Your task to perform on an android device: clear all cookies in the chrome app Image 0: 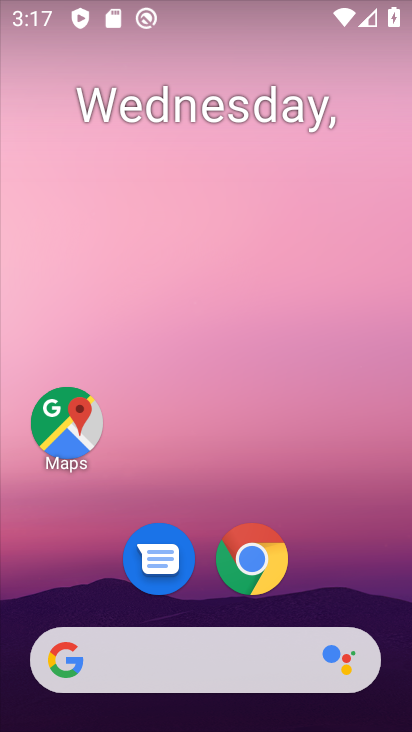
Step 0: drag from (99, 568) to (229, 142)
Your task to perform on an android device: clear all cookies in the chrome app Image 1: 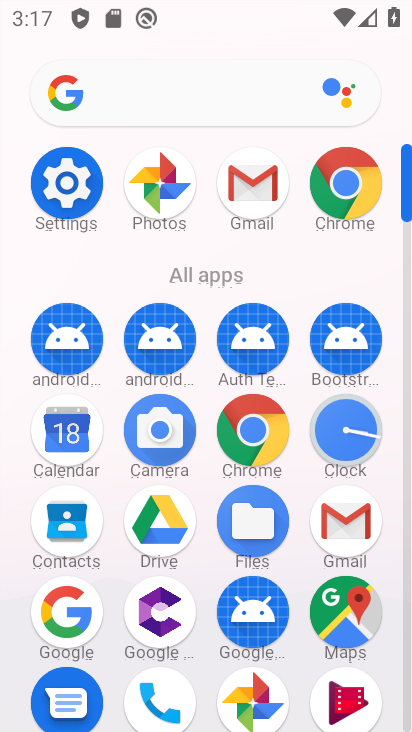
Step 1: click (258, 425)
Your task to perform on an android device: clear all cookies in the chrome app Image 2: 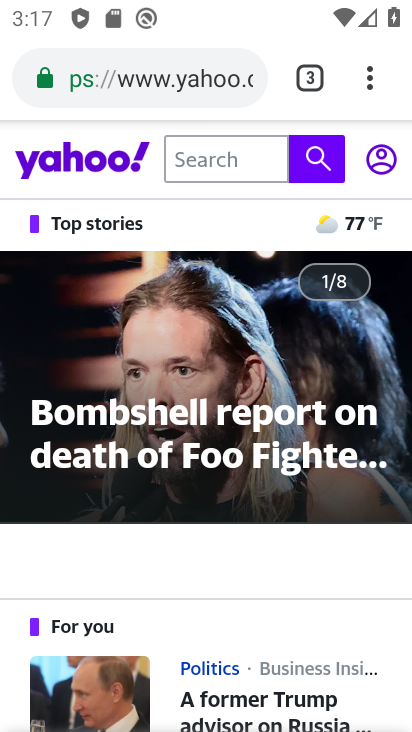
Step 2: drag from (384, 83) to (238, 614)
Your task to perform on an android device: clear all cookies in the chrome app Image 3: 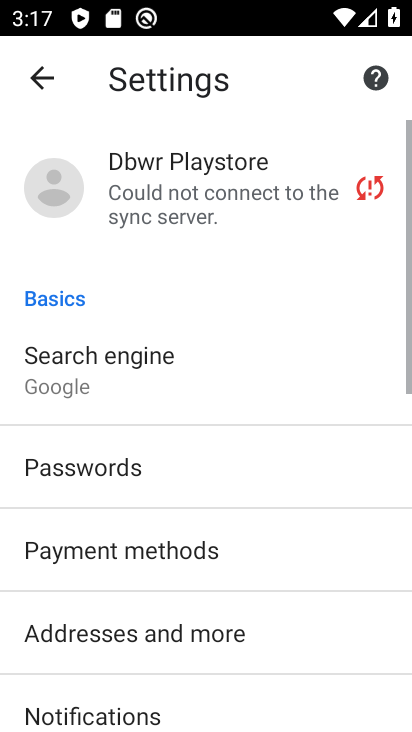
Step 3: drag from (204, 620) to (285, 248)
Your task to perform on an android device: clear all cookies in the chrome app Image 4: 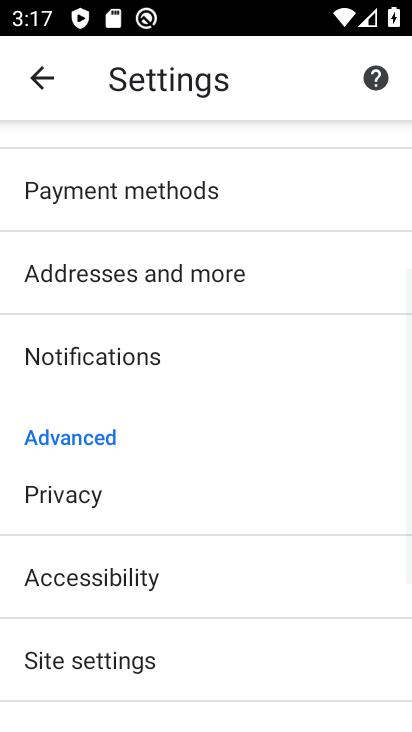
Step 4: click (143, 501)
Your task to perform on an android device: clear all cookies in the chrome app Image 5: 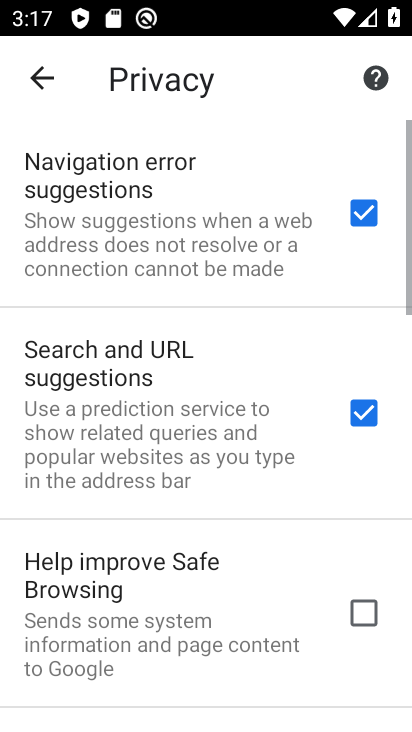
Step 5: drag from (160, 654) to (237, 181)
Your task to perform on an android device: clear all cookies in the chrome app Image 6: 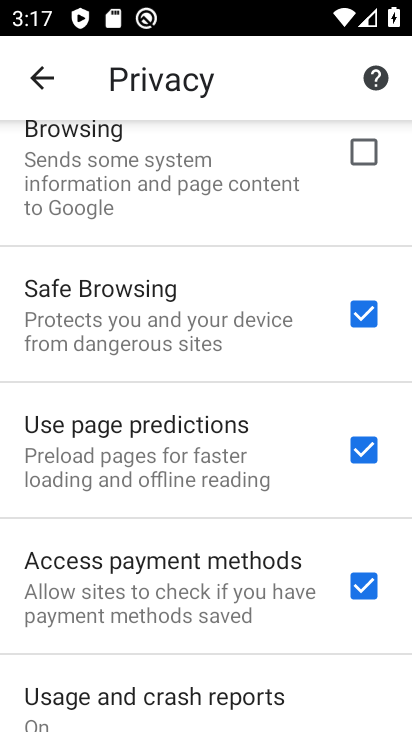
Step 6: drag from (121, 663) to (267, 276)
Your task to perform on an android device: clear all cookies in the chrome app Image 7: 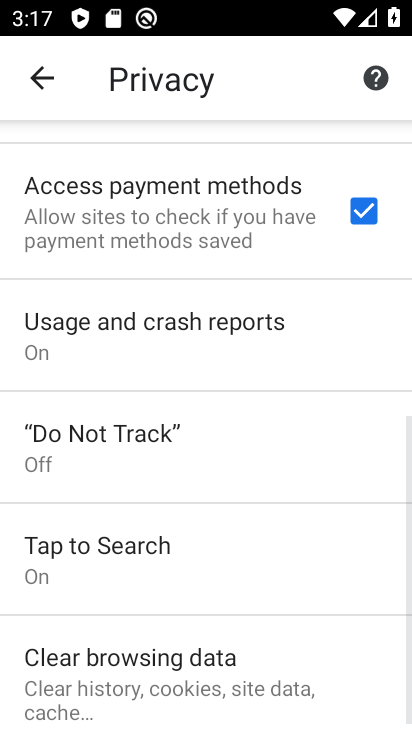
Step 7: drag from (140, 658) to (227, 392)
Your task to perform on an android device: clear all cookies in the chrome app Image 8: 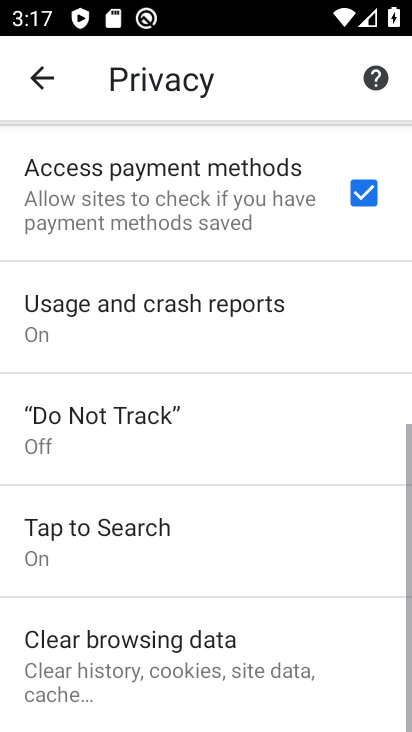
Step 8: click (150, 651)
Your task to perform on an android device: clear all cookies in the chrome app Image 9: 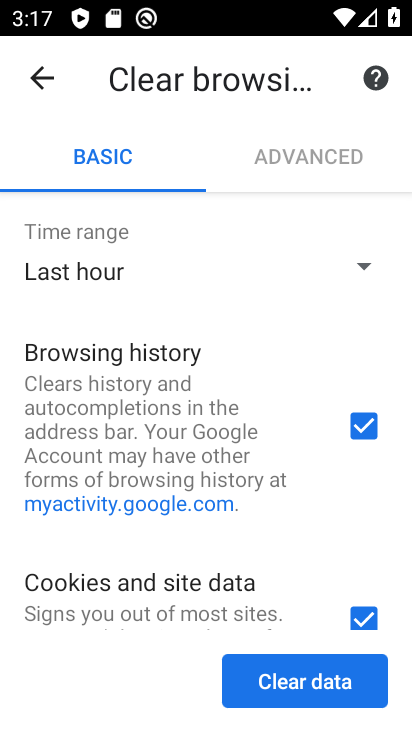
Step 9: click (369, 427)
Your task to perform on an android device: clear all cookies in the chrome app Image 10: 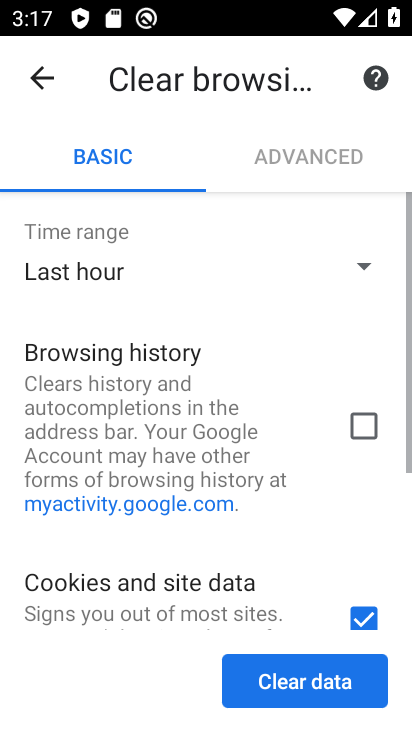
Step 10: drag from (143, 563) to (248, 250)
Your task to perform on an android device: clear all cookies in the chrome app Image 11: 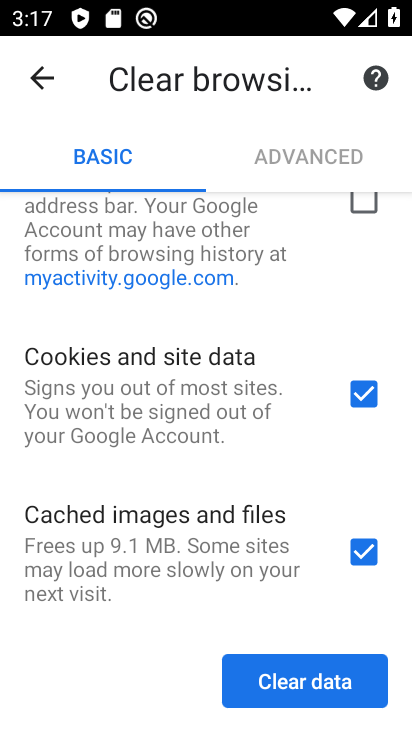
Step 11: click (370, 562)
Your task to perform on an android device: clear all cookies in the chrome app Image 12: 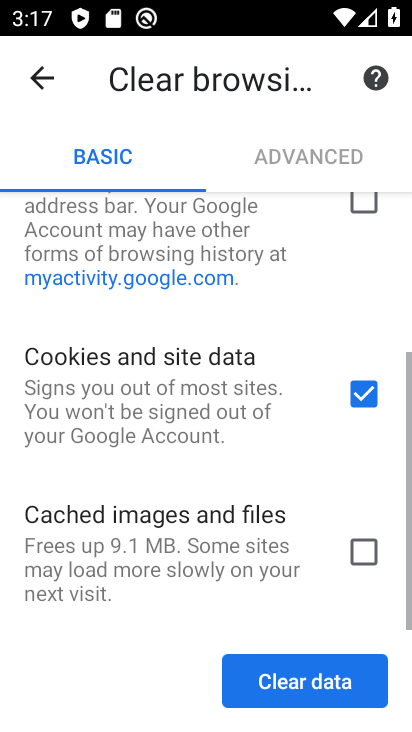
Step 12: click (332, 664)
Your task to perform on an android device: clear all cookies in the chrome app Image 13: 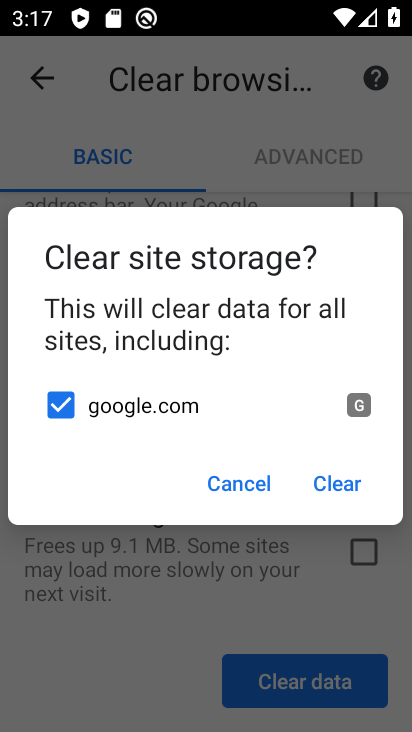
Step 13: click (328, 478)
Your task to perform on an android device: clear all cookies in the chrome app Image 14: 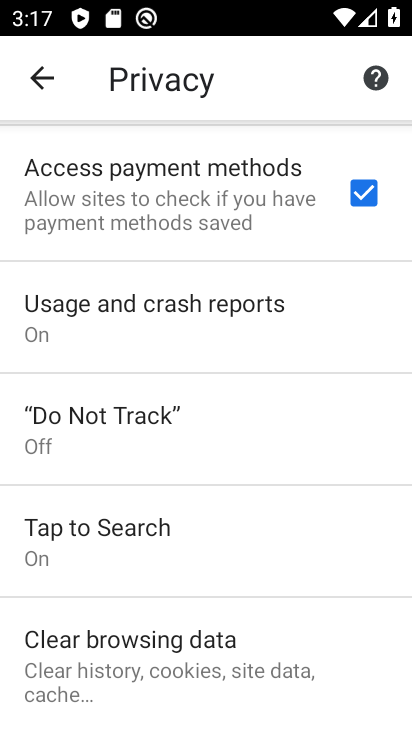
Step 14: task complete